Your task to perform on an android device: Show me the alarms in the clock app Image 0: 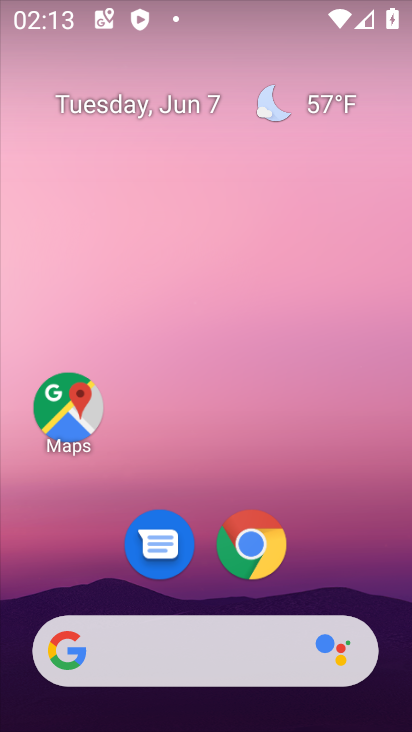
Step 0: drag from (282, 621) to (339, 245)
Your task to perform on an android device: Show me the alarms in the clock app Image 1: 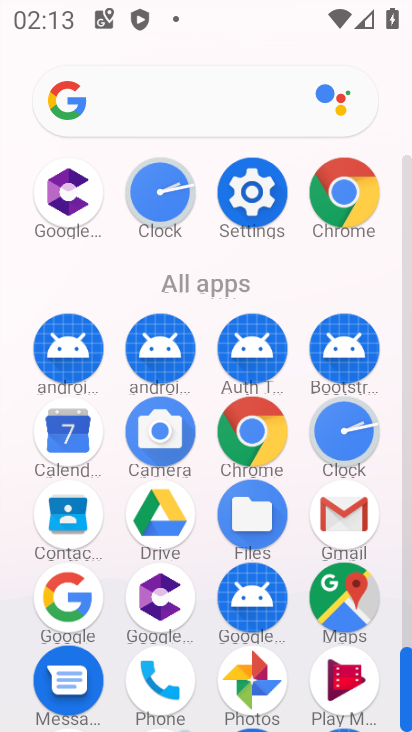
Step 1: click (357, 431)
Your task to perform on an android device: Show me the alarms in the clock app Image 2: 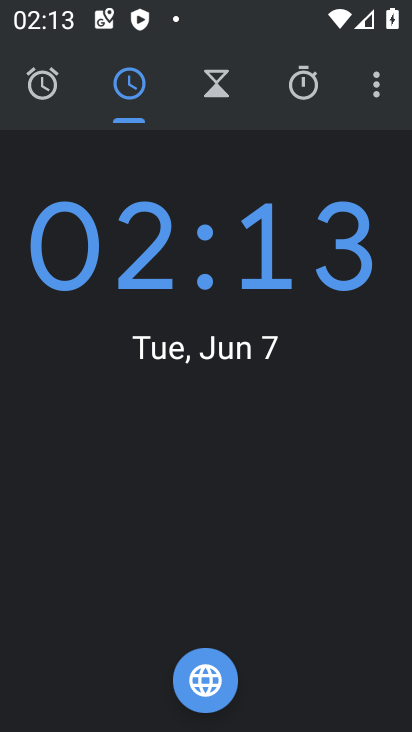
Step 2: click (70, 96)
Your task to perform on an android device: Show me the alarms in the clock app Image 3: 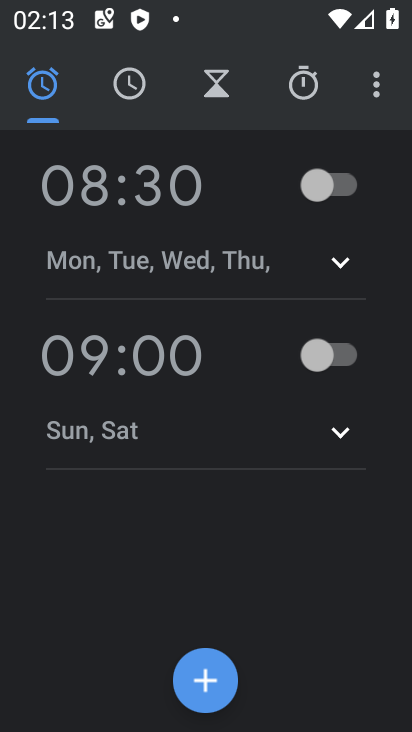
Step 3: task complete